Your task to perform on an android device: Is it going to rain today? Image 0: 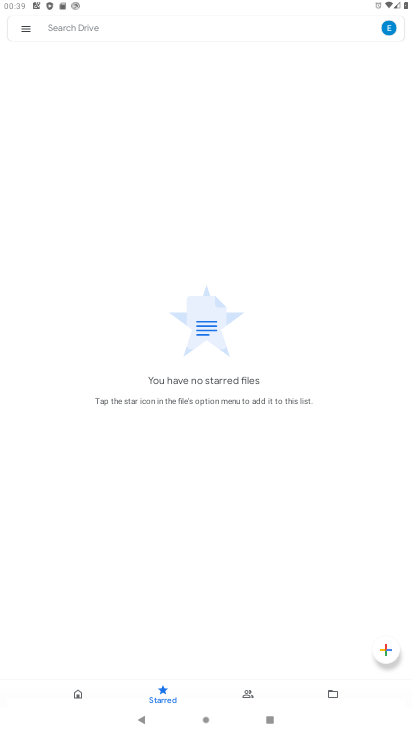
Step 0: press home button
Your task to perform on an android device: Is it going to rain today? Image 1: 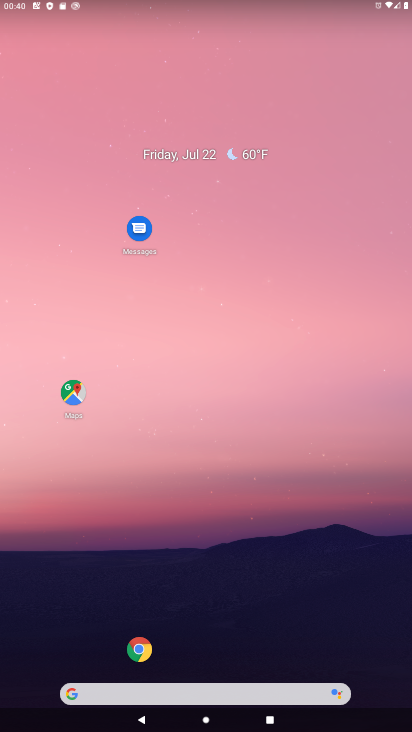
Step 1: click (132, 686)
Your task to perform on an android device: Is it going to rain today? Image 2: 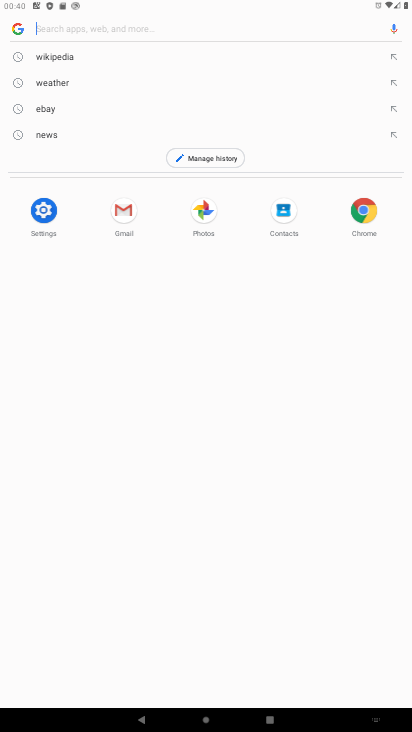
Step 2: type "Is it going to rain today?"
Your task to perform on an android device: Is it going to rain today? Image 3: 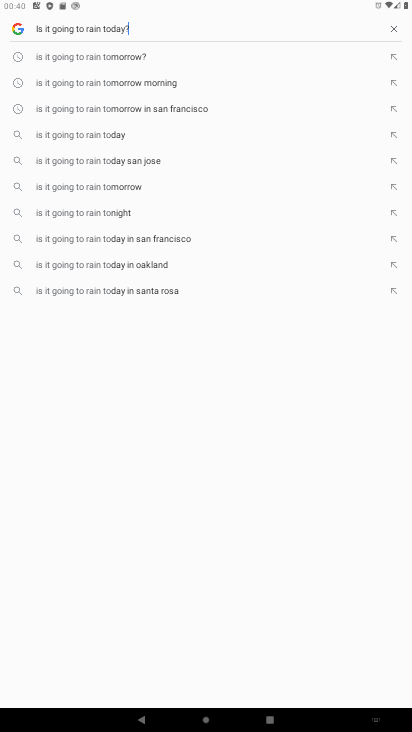
Step 3: type ""
Your task to perform on an android device: Is it going to rain today? Image 4: 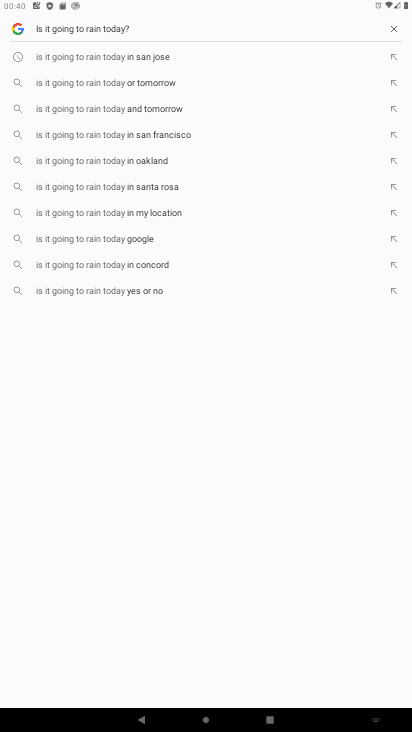
Step 4: type ""
Your task to perform on an android device: Is it going to rain today? Image 5: 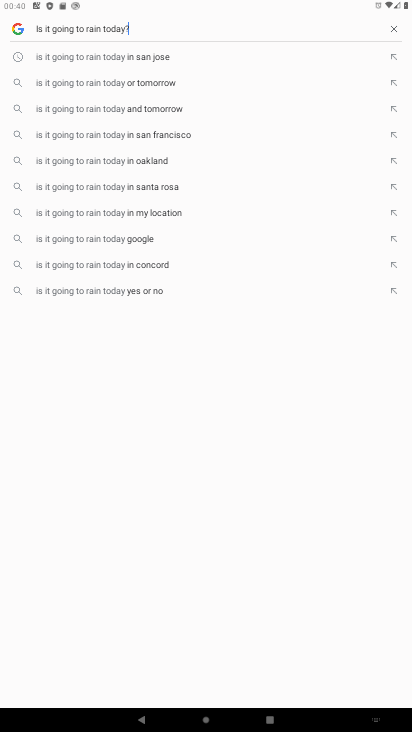
Step 5: type ""
Your task to perform on an android device: Is it going to rain today? Image 6: 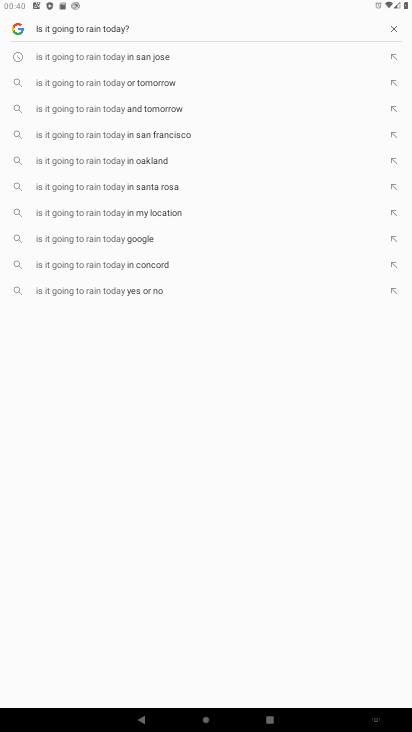
Step 6: type ""
Your task to perform on an android device: Is it going to rain today? Image 7: 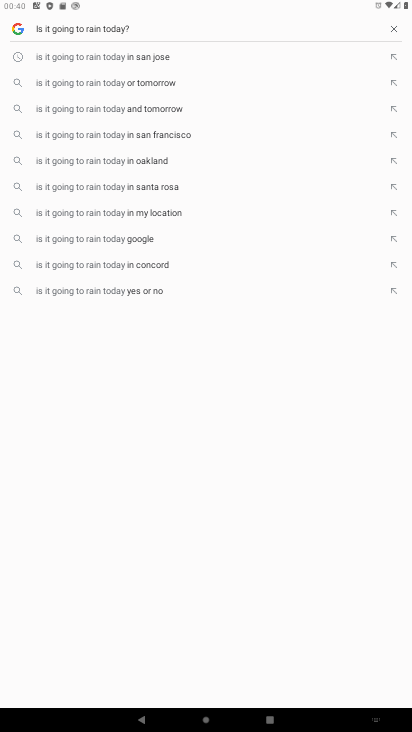
Step 7: task complete